Your task to perform on an android device: open chrome privacy settings Image 0: 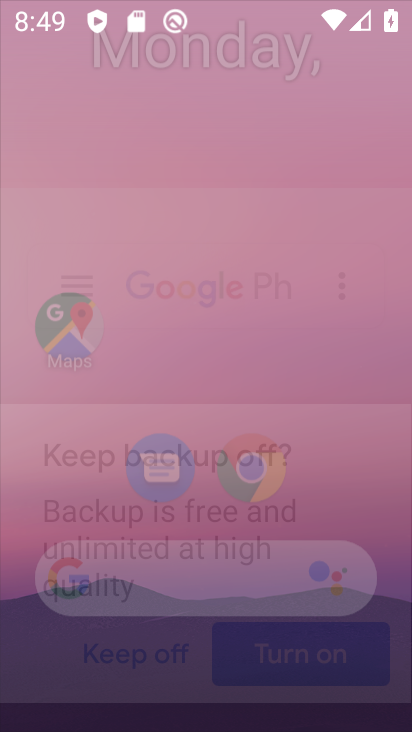
Step 0: press back button
Your task to perform on an android device: open chrome privacy settings Image 1: 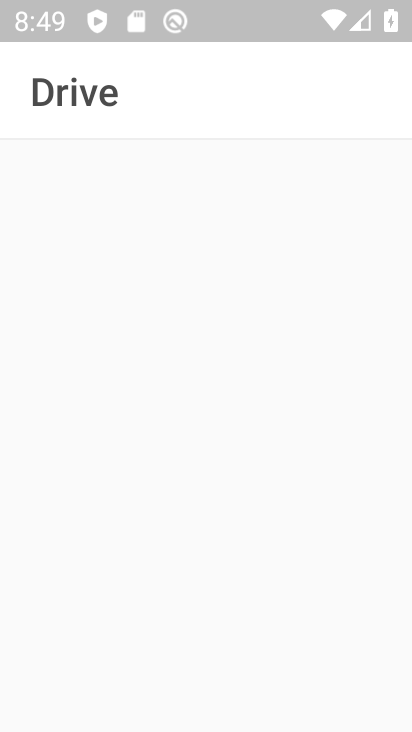
Step 1: press home button
Your task to perform on an android device: open chrome privacy settings Image 2: 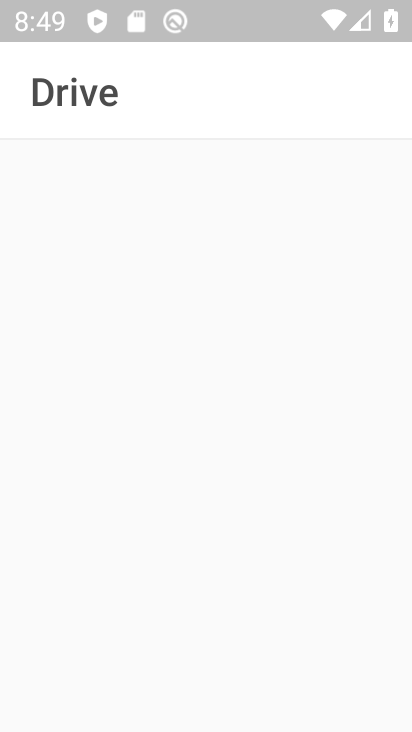
Step 2: drag from (194, 327) to (138, 18)
Your task to perform on an android device: open chrome privacy settings Image 3: 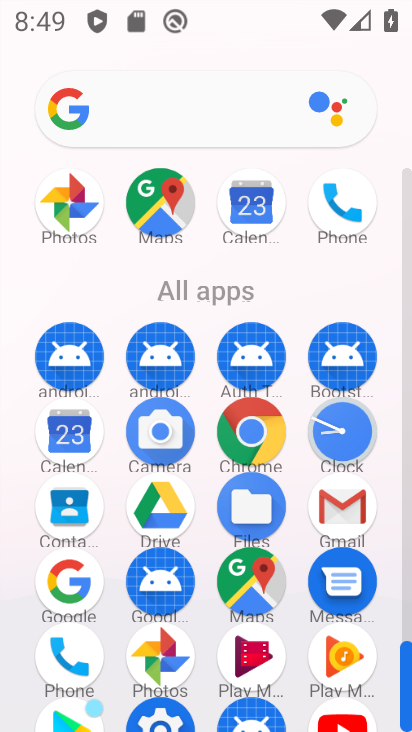
Step 3: press back button
Your task to perform on an android device: open chrome privacy settings Image 4: 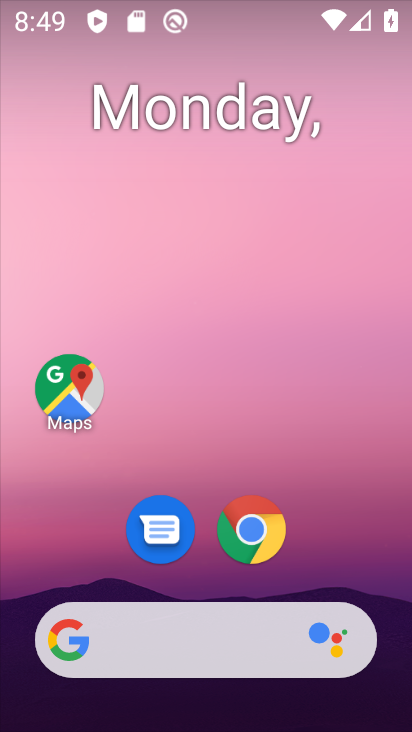
Step 4: drag from (279, 446) to (228, 1)
Your task to perform on an android device: open chrome privacy settings Image 5: 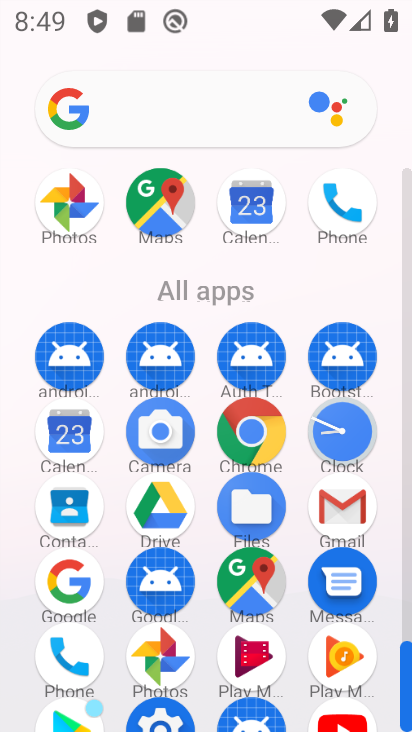
Step 5: click (185, 128)
Your task to perform on an android device: open chrome privacy settings Image 6: 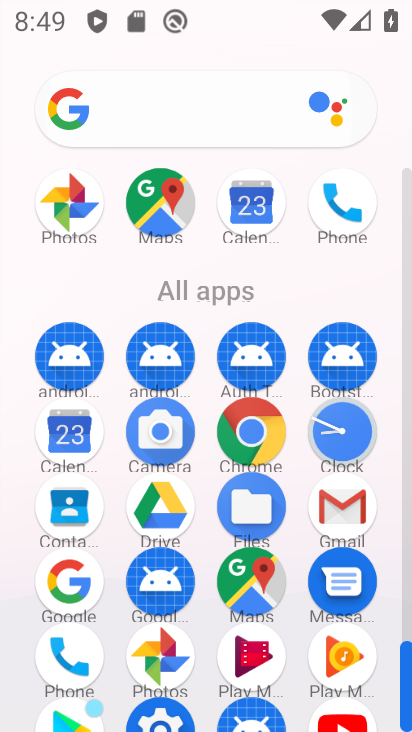
Step 6: drag from (205, 521) to (210, 216)
Your task to perform on an android device: open chrome privacy settings Image 7: 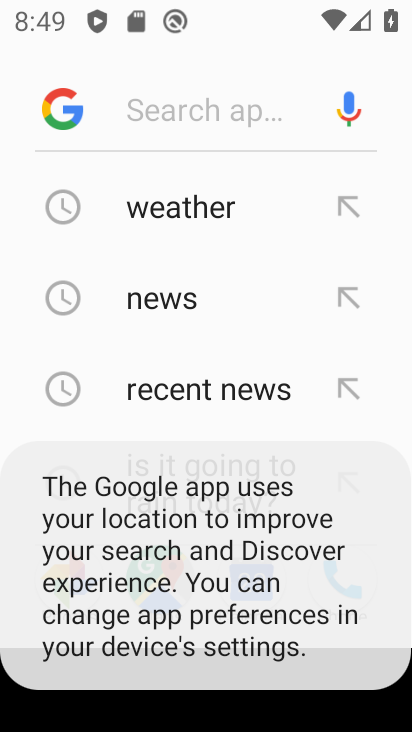
Step 7: press back button
Your task to perform on an android device: open chrome privacy settings Image 8: 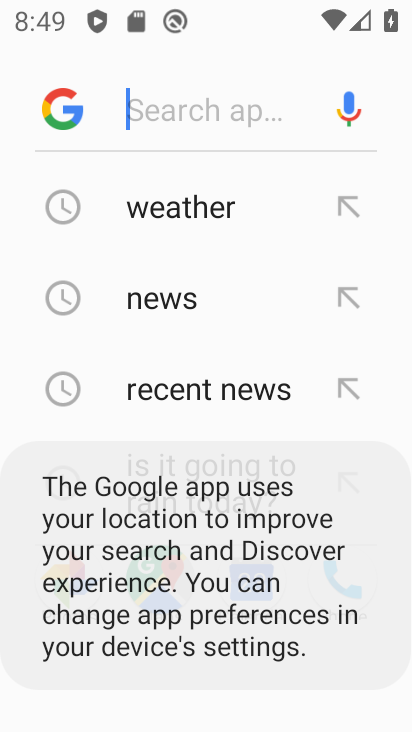
Step 8: press back button
Your task to perform on an android device: open chrome privacy settings Image 9: 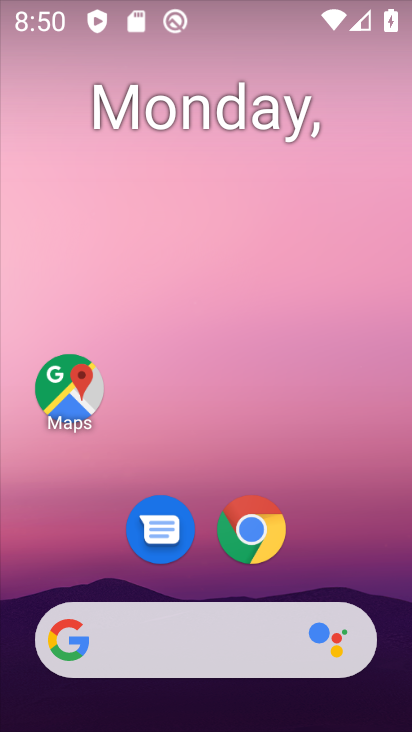
Step 9: drag from (236, 450) to (216, 23)
Your task to perform on an android device: open chrome privacy settings Image 10: 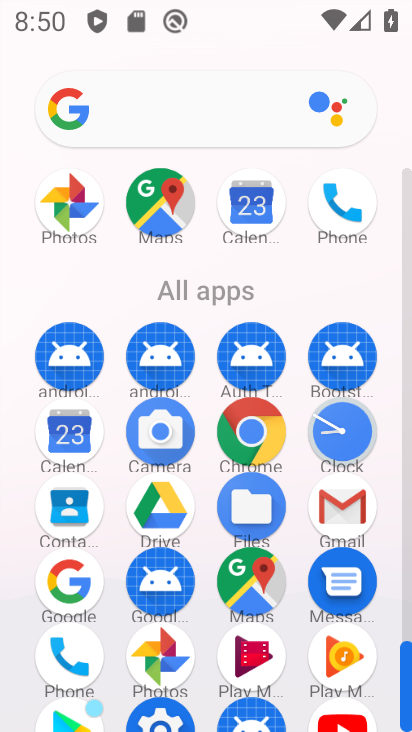
Step 10: drag from (199, 483) to (245, 162)
Your task to perform on an android device: open chrome privacy settings Image 11: 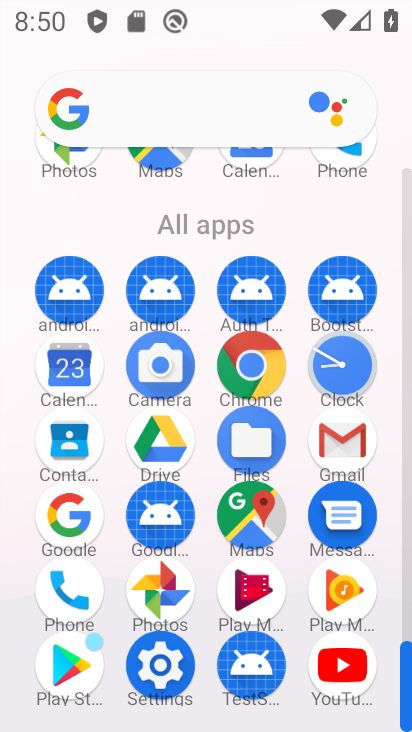
Step 11: drag from (252, 478) to (222, 189)
Your task to perform on an android device: open chrome privacy settings Image 12: 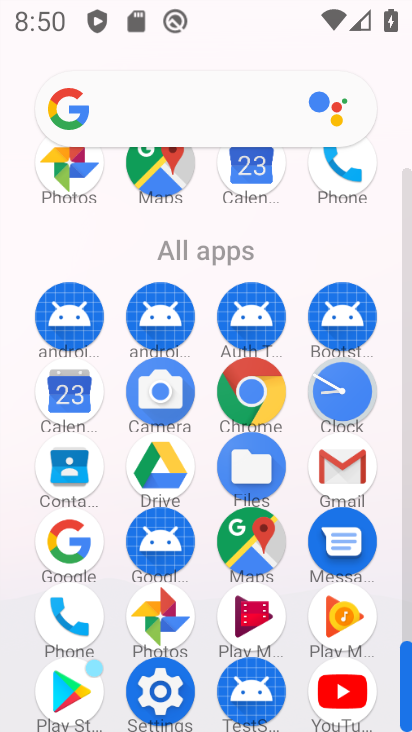
Step 12: click (153, 676)
Your task to perform on an android device: open chrome privacy settings Image 13: 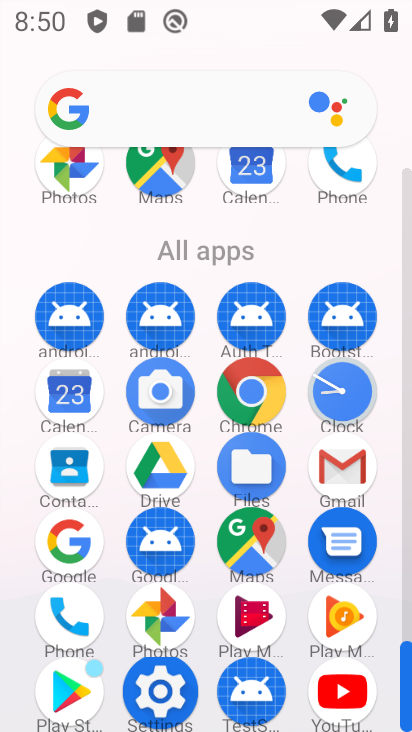
Step 13: click (157, 691)
Your task to perform on an android device: open chrome privacy settings Image 14: 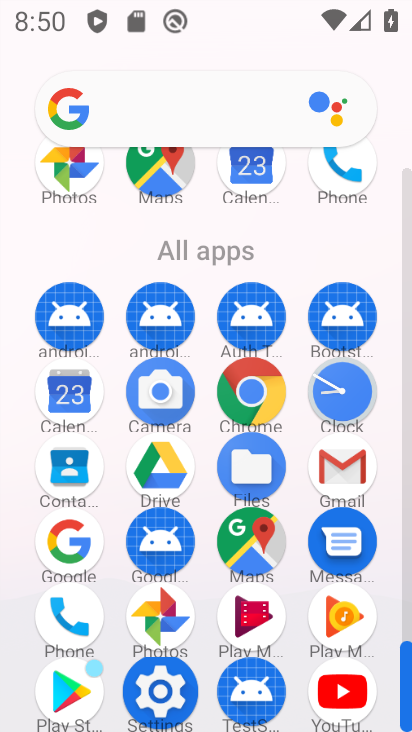
Step 14: click (157, 692)
Your task to perform on an android device: open chrome privacy settings Image 15: 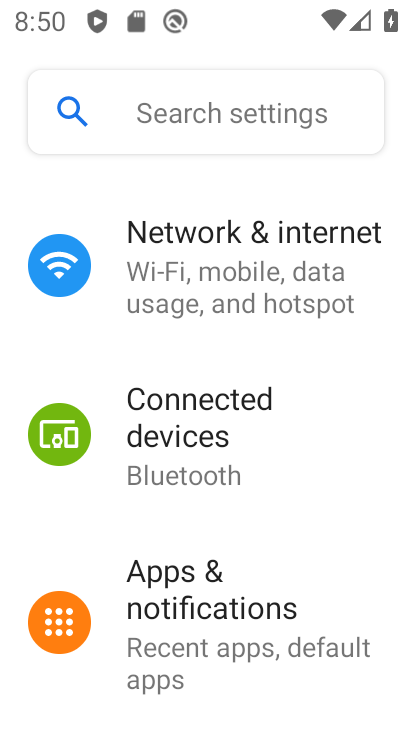
Step 15: click (165, 694)
Your task to perform on an android device: open chrome privacy settings Image 16: 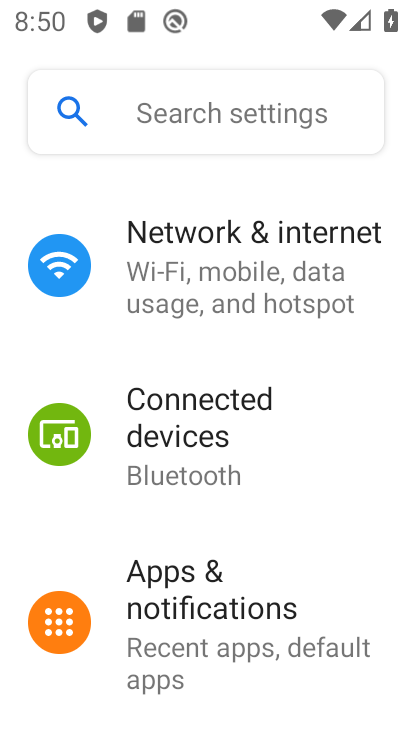
Step 16: click (165, 694)
Your task to perform on an android device: open chrome privacy settings Image 17: 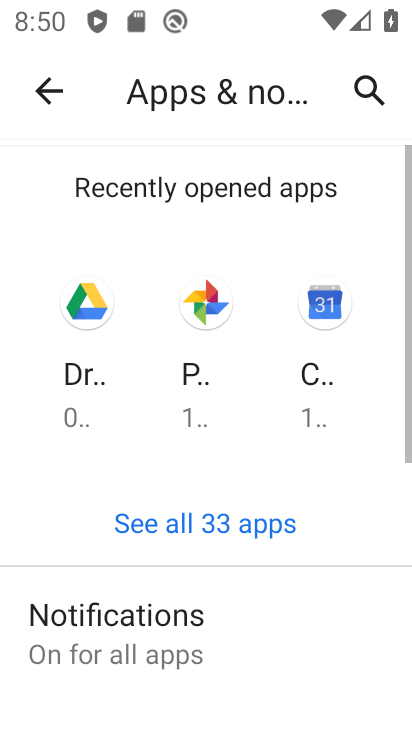
Step 17: click (45, 81)
Your task to perform on an android device: open chrome privacy settings Image 18: 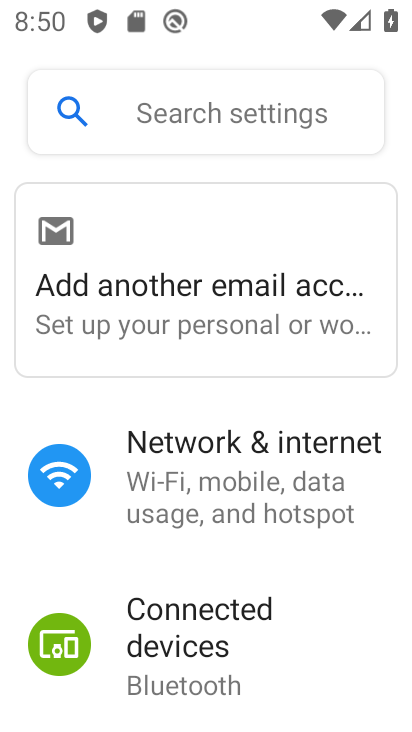
Step 18: drag from (278, 271) to (278, 198)
Your task to perform on an android device: open chrome privacy settings Image 19: 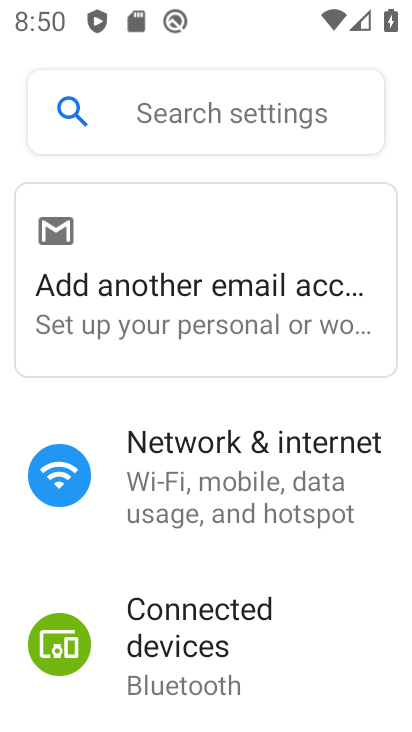
Step 19: drag from (288, 524) to (268, 135)
Your task to perform on an android device: open chrome privacy settings Image 20: 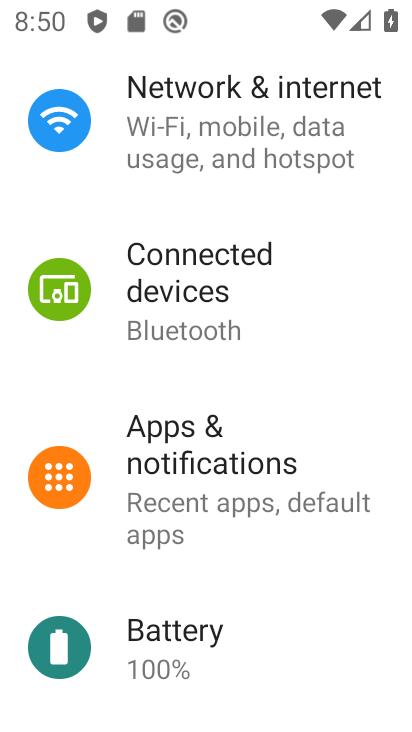
Step 20: drag from (239, 584) to (237, 177)
Your task to perform on an android device: open chrome privacy settings Image 21: 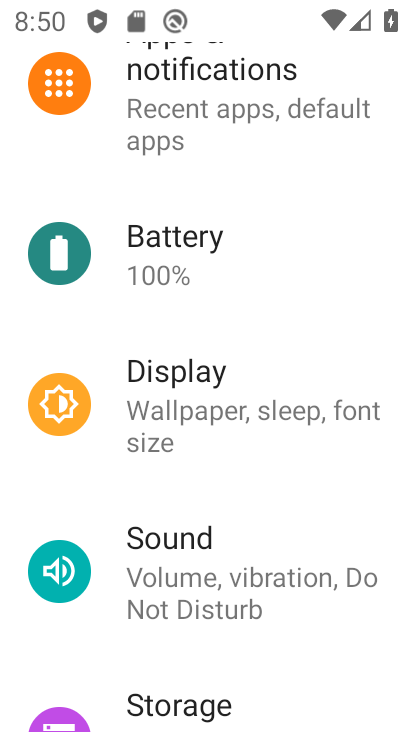
Step 21: drag from (217, 458) to (174, 158)
Your task to perform on an android device: open chrome privacy settings Image 22: 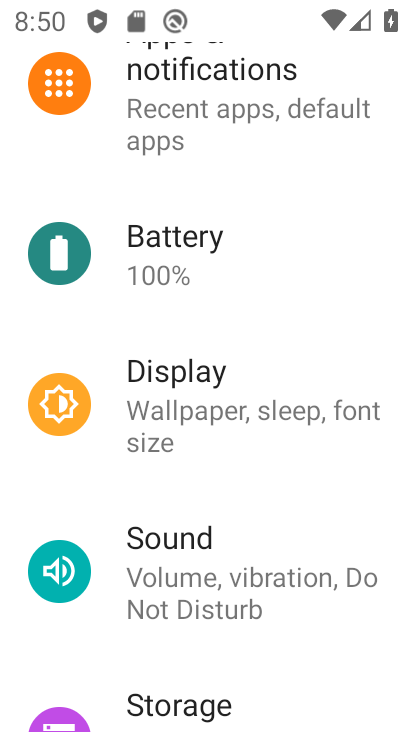
Step 22: press home button
Your task to perform on an android device: open chrome privacy settings Image 23: 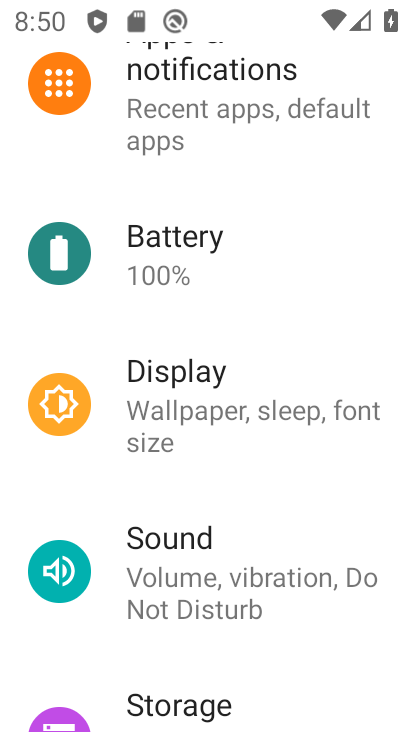
Step 23: press home button
Your task to perform on an android device: open chrome privacy settings Image 24: 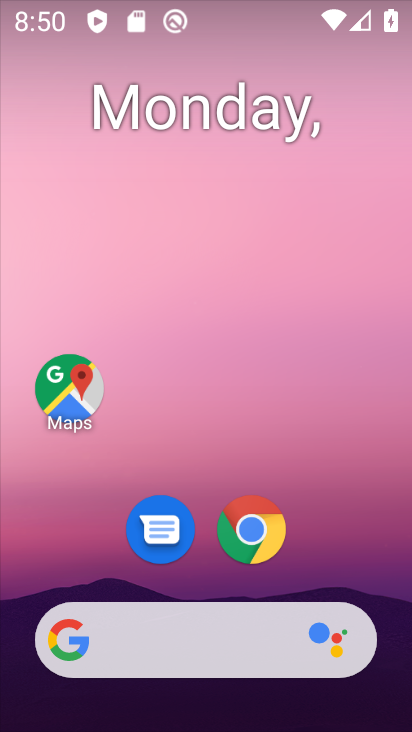
Step 24: drag from (316, 674) to (287, 82)
Your task to perform on an android device: open chrome privacy settings Image 25: 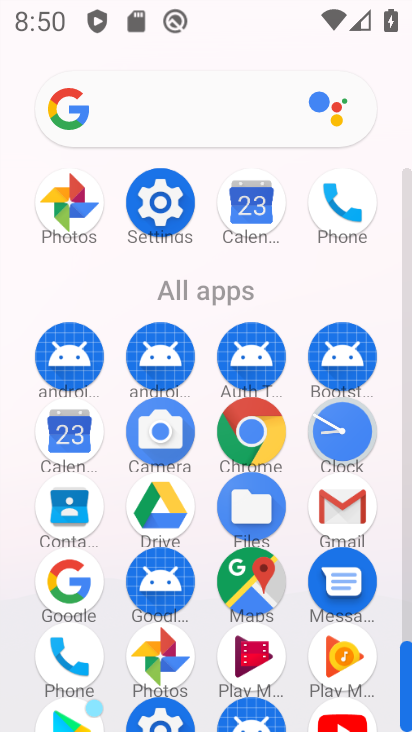
Step 25: click (268, 434)
Your task to perform on an android device: open chrome privacy settings Image 26: 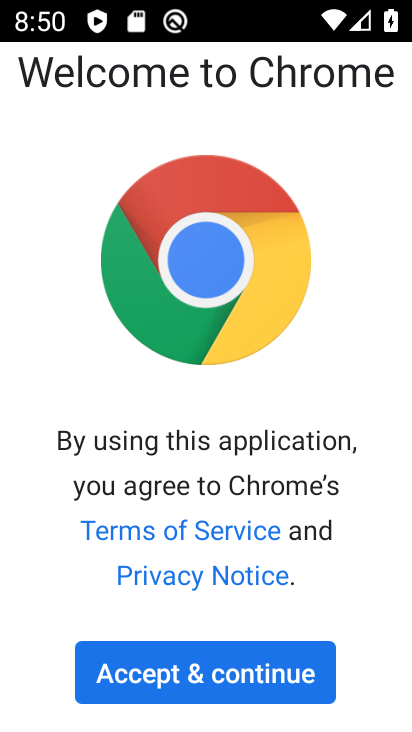
Step 26: click (257, 674)
Your task to perform on an android device: open chrome privacy settings Image 27: 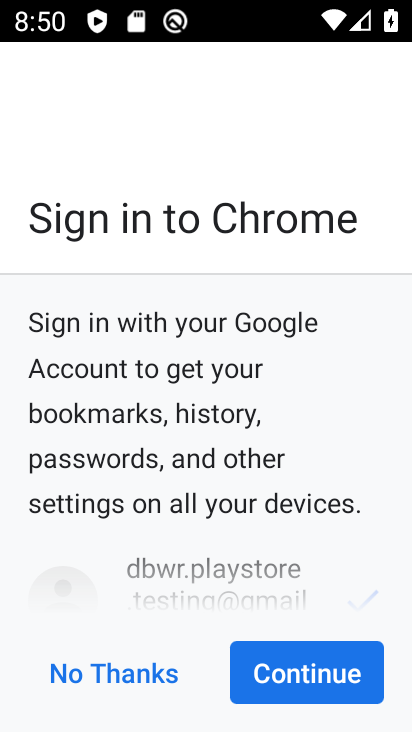
Step 27: click (297, 678)
Your task to perform on an android device: open chrome privacy settings Image 28: 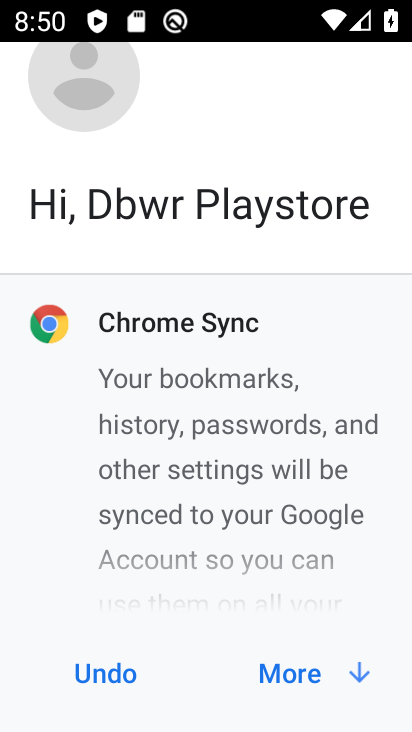
Step 28: click (254, 673)
Your task to perform on an android device: open chrome privacy settings Image 29: 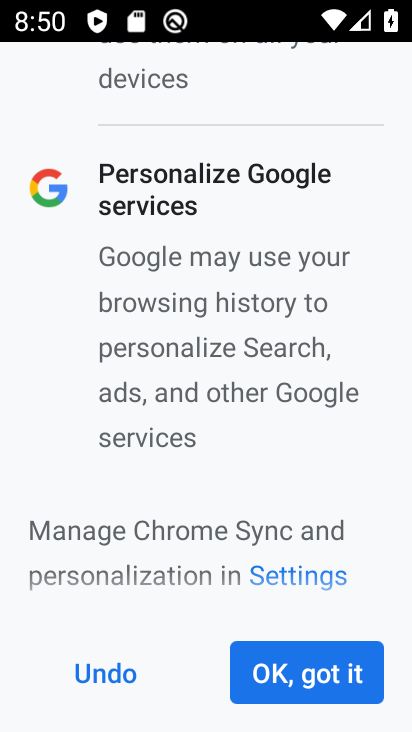
Step 29: click (291, 664)
Your task to perform on an android device: open chrome privacy settings Image 30: 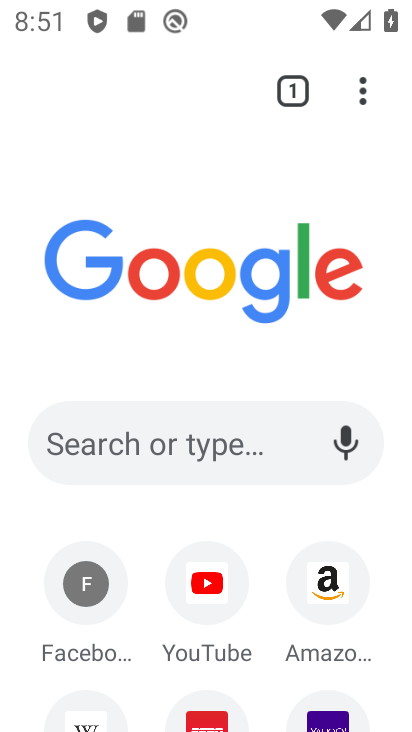
Step 30: drag from (366, 92) to (95, 561)
Your task to perform on an android device: open chrome privacy settings Image 31: 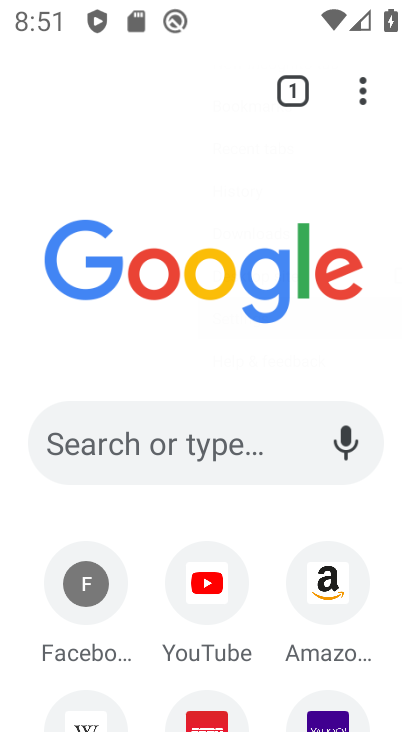
Step 31: click (100, 561)
Your task to perform on an android device: open chrome privacy settings Image 32: 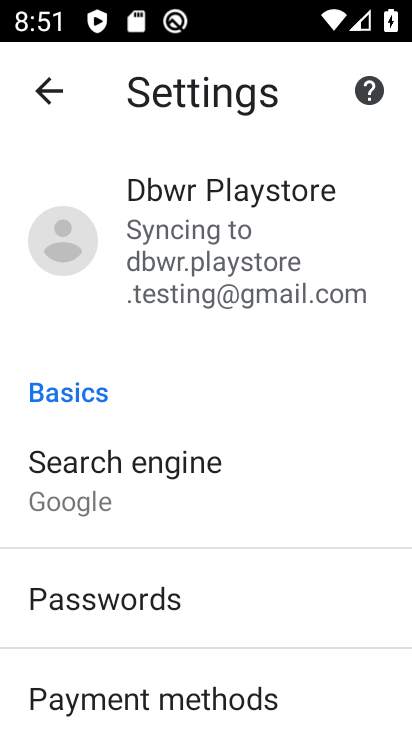
Step 32: drag from (178, 548) to (168, 299)
Your task to perform on an android device: open chrome privacy settings Image 33: 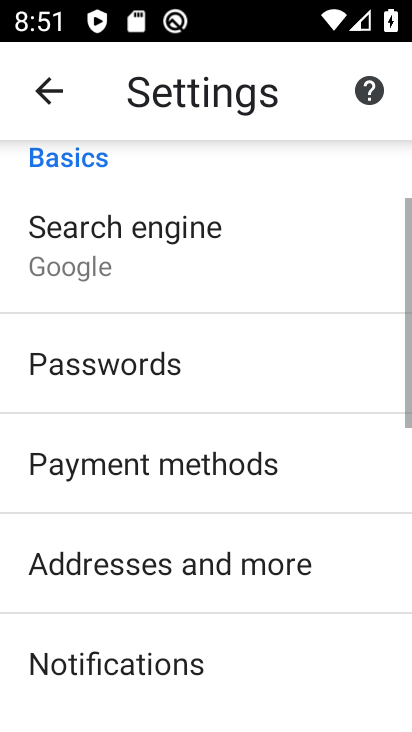
Step 33: drag from (175, 466) to (134, 265)
Your task to perform on an android device: open chrome privacy settings Image 34: 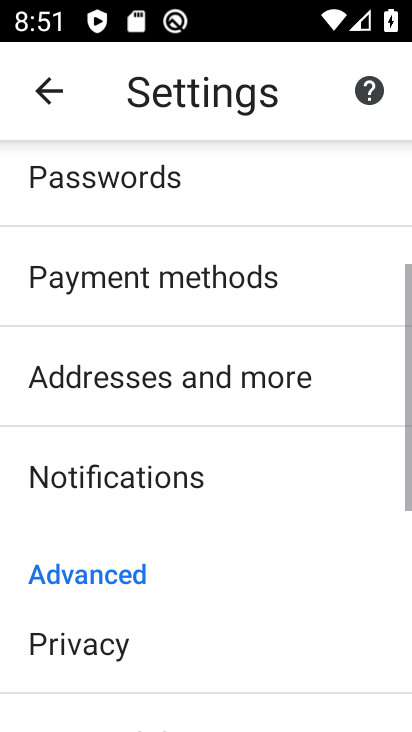
Step 34: drag from (153, 443) to (106, 289)
Your task to perform on an android device: open chrome privacy settings Image 35: 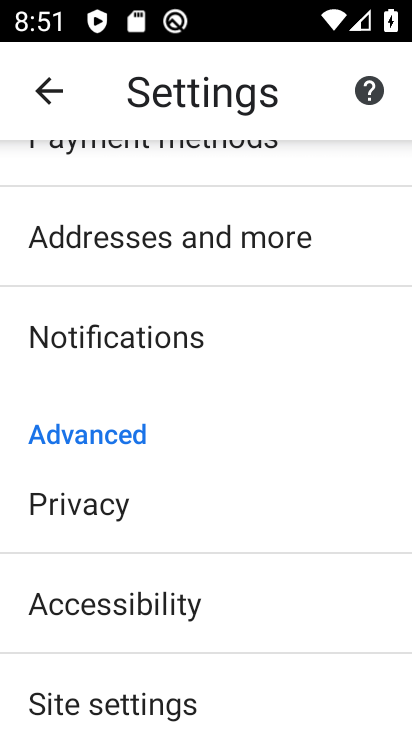
Step 35: click (91, 500)
Your task to perform on an android device: open chrome privacy settings Image 36: 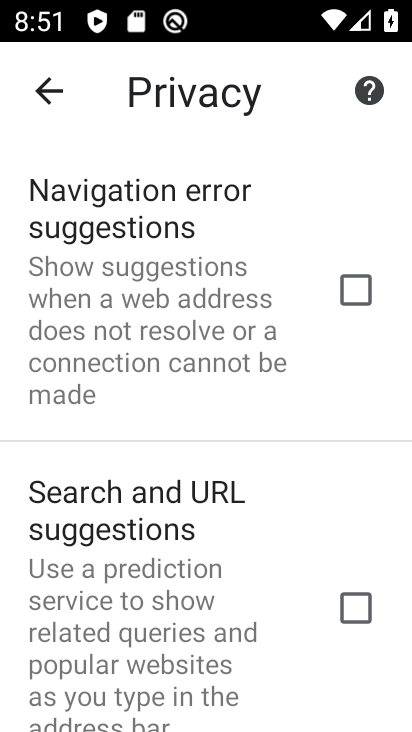
Step 36: task complete